Your task to perform on an android device: turn on translation in the chrome app Image 0: 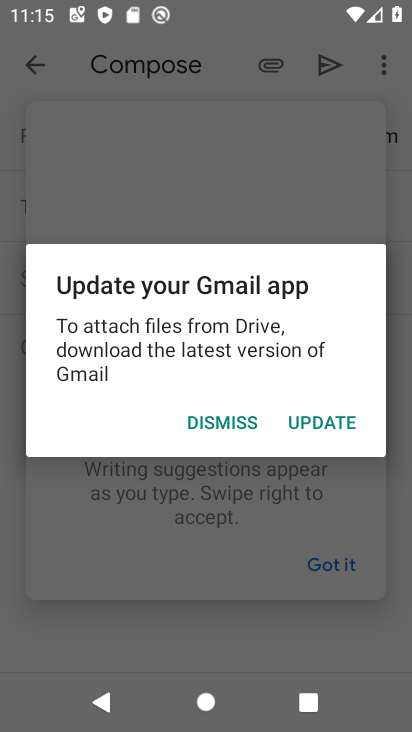
Step 0: press home button
Your task to perform on an android device: turn on translation in the chrome app Image 1: 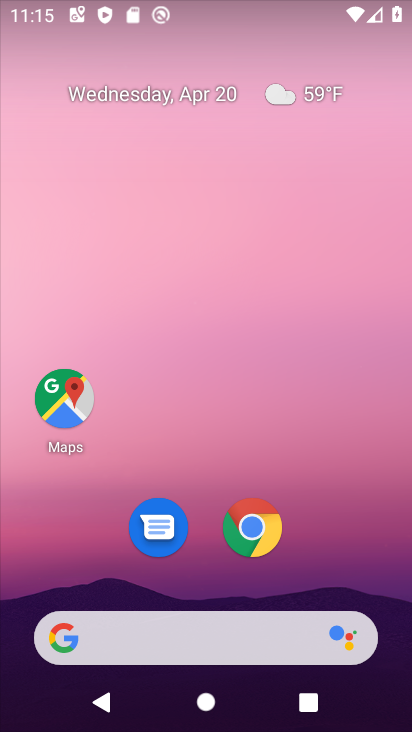
Step 1: drag from (398, 442) to (377, 164)
Your task to perform on an android device: turn on translation in the chrome app Image 2: 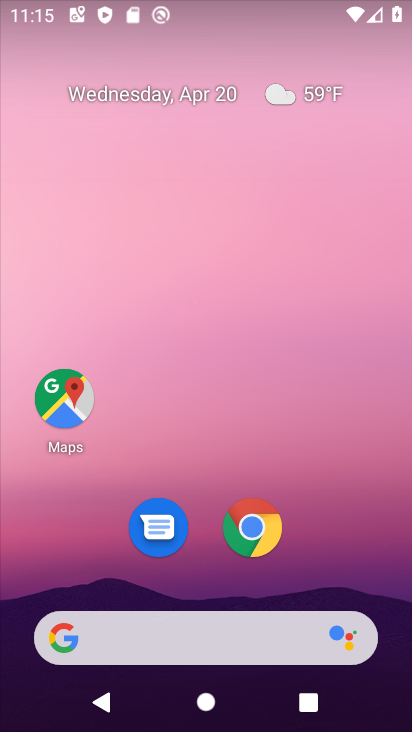
Step 2: drag from (372, 526) to (354, 149)
Your task to perform on an android device: turn on translation in the chrome app Image 3: 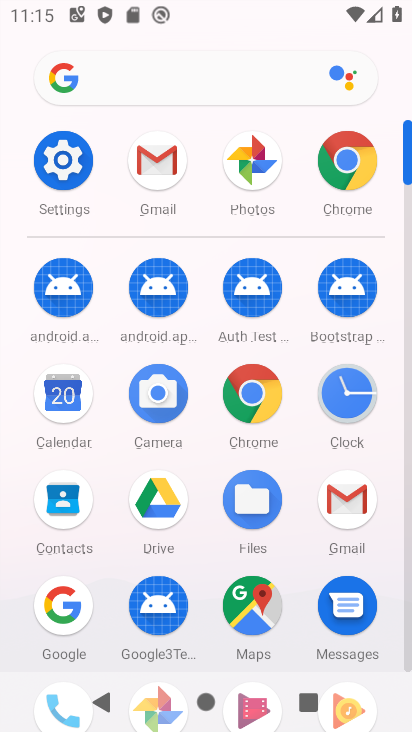
Step 3: click (249, 394)
Your task to perform on an android device: turn on translation in the chrome app Image 4: 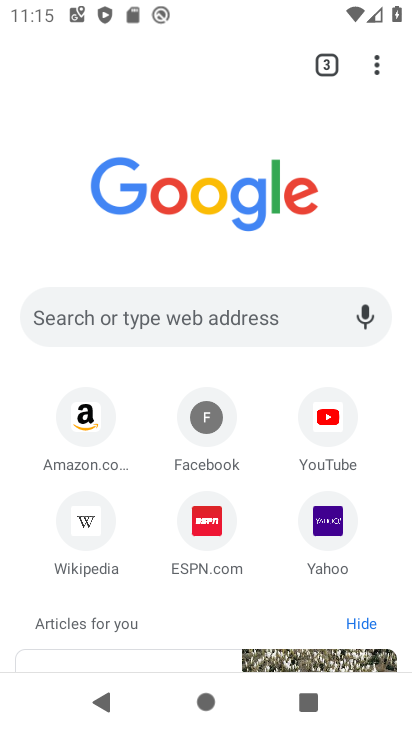
Step 4: drag from (380, 73) to (188, 585)
Your task to perform on an android device: turn on translation in the chrome app Image 5: 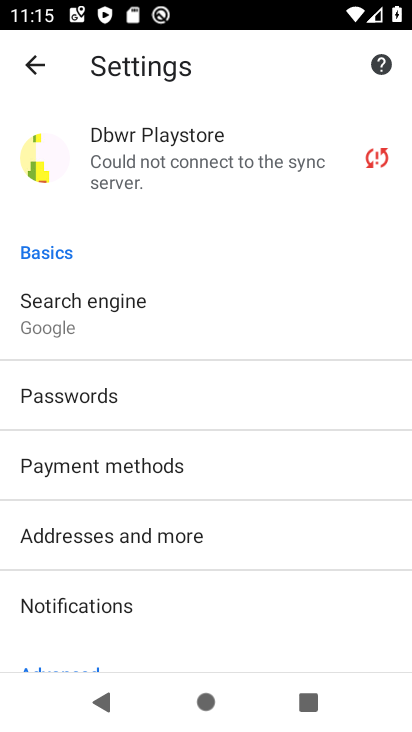
Step 5: drag from (250, 608) to (266, 347)
Your task to perform on an android device: turn on translation in the chrome app Image 6: 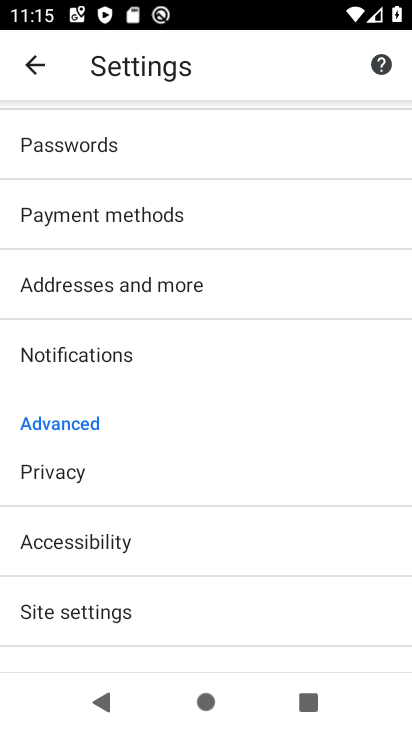
Step 6: drag from (263, 574) to (270, 398)
Your task to perform on an android device: turn on translation in the chrome app Image 7: 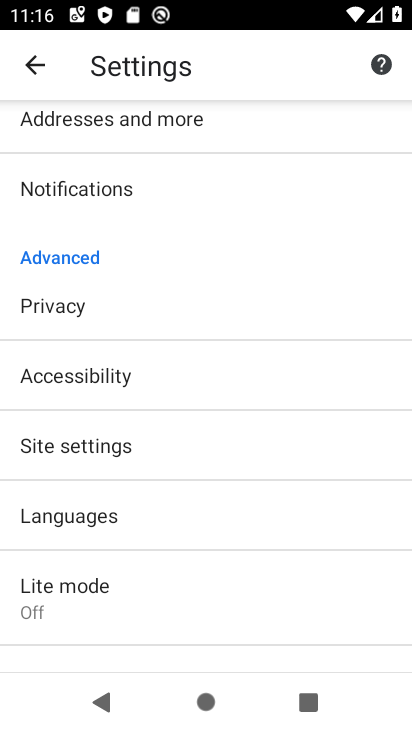
Step 7: click (149, 514)
Your task to perform on an android device: turn on translation in the chrome app Image 8: 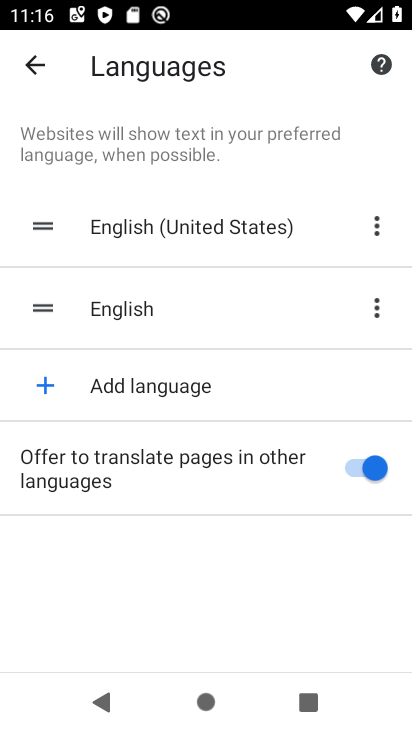
Step 8: task complete